Your task to perform on an android device: open app "Google Pay: Save, Pay, Manage" (install if not already installed) Image 0: 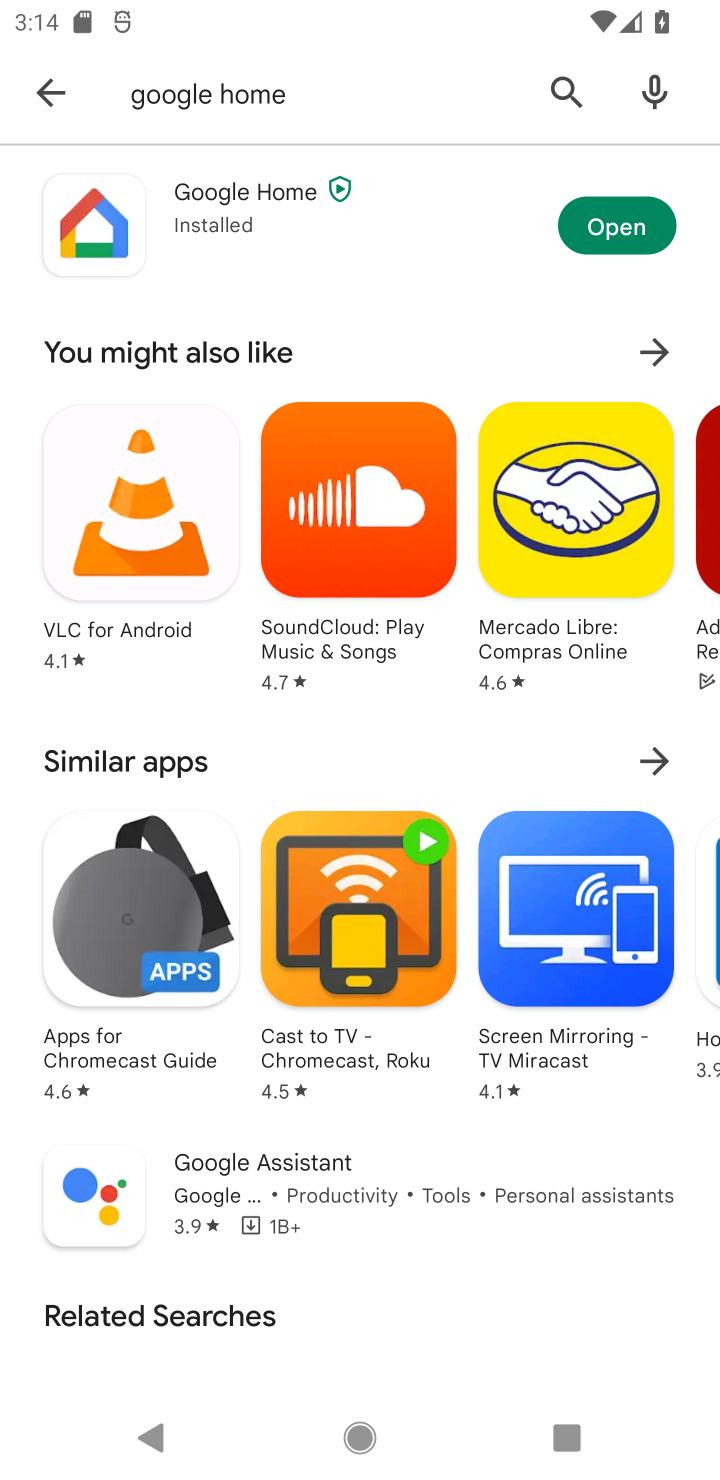
Step 0: click (573, 116)
Your task to perform on an android device: open app "Google Pay: Save, Pay, Manage" (install if not already installed) Image 1: 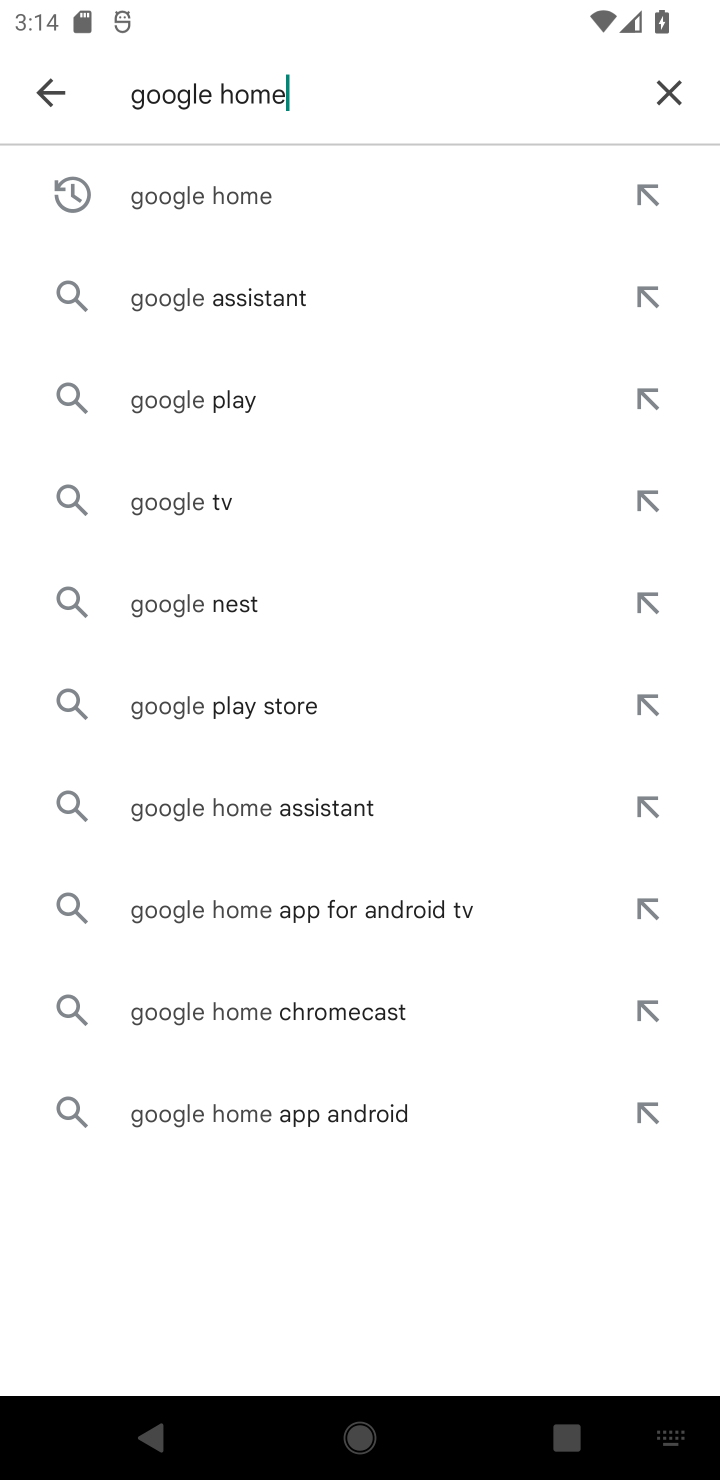
Step 1: click (674, 104)
Your task to perform on an android device: open app "Google Pay: Save, Pay, Manage" (install if not already installed) Image 2: 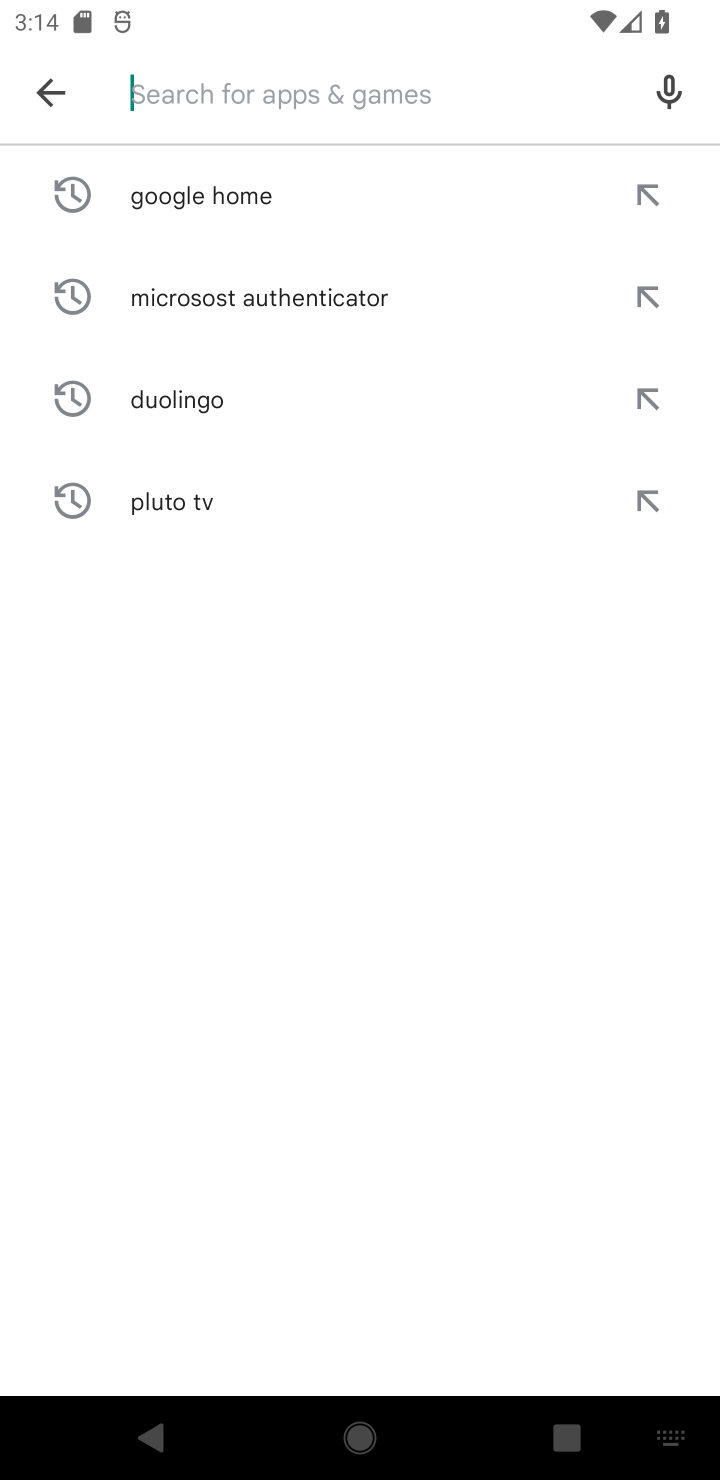
Step 2: type "google pay"
Your task to perform on an android device: open app "Google Pay: Save, Pay, Manage" (install if not already installed) Image 3: 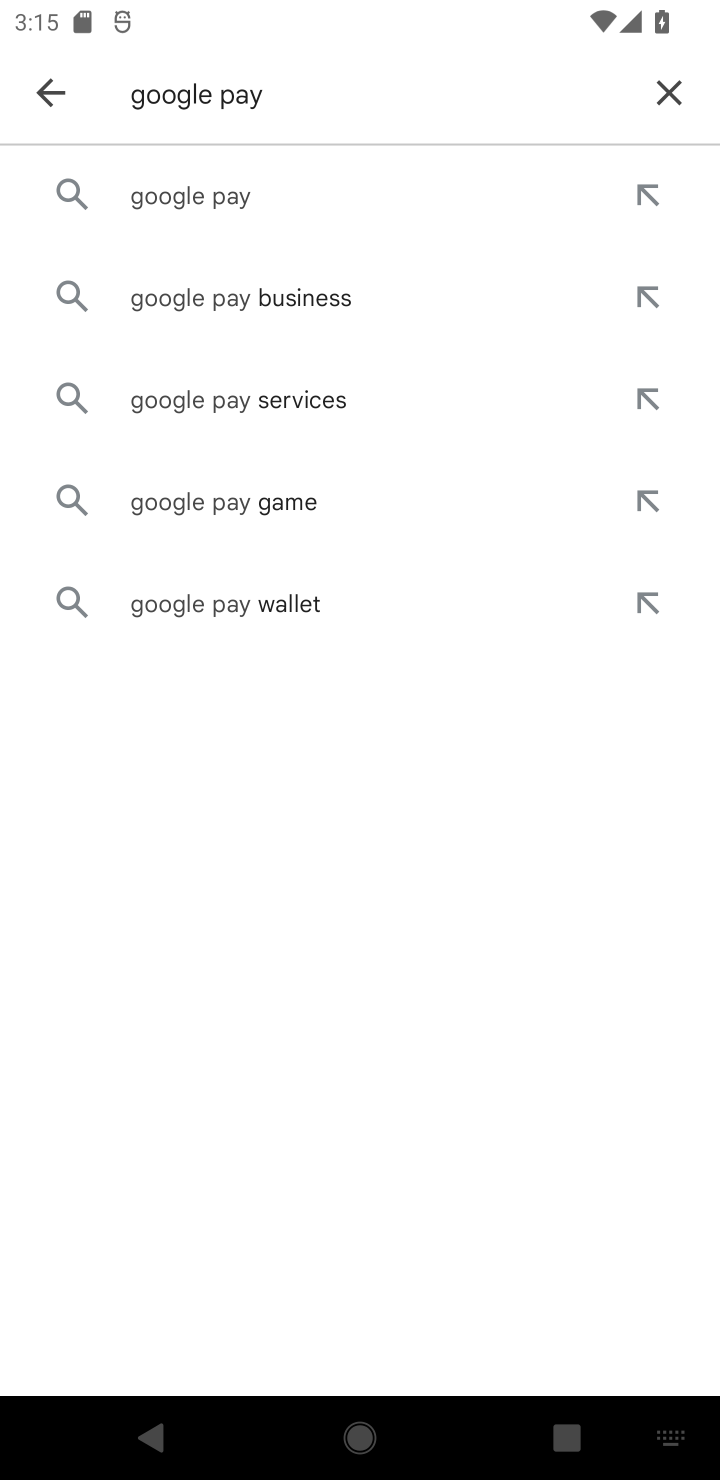
Step 3: click (262, 217)
Your task to perform on an android device: open app "Google Pay: Save, Pay, Manage" (install if not already installed) Image 4: 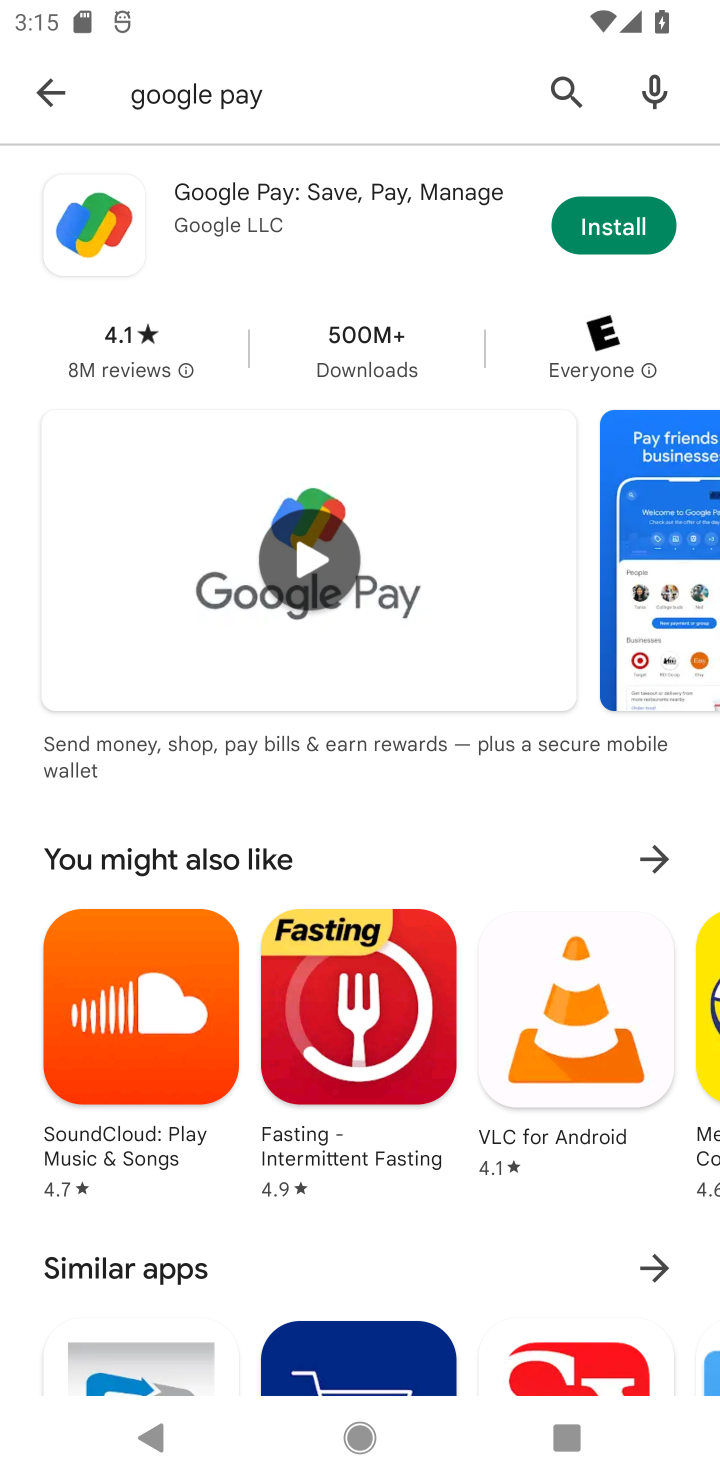
Step 4: click (653, 215)
Your task to perform on an android device: open app "Google Pay: Save, Pay, Manage" (install if not already installed) Image 5: 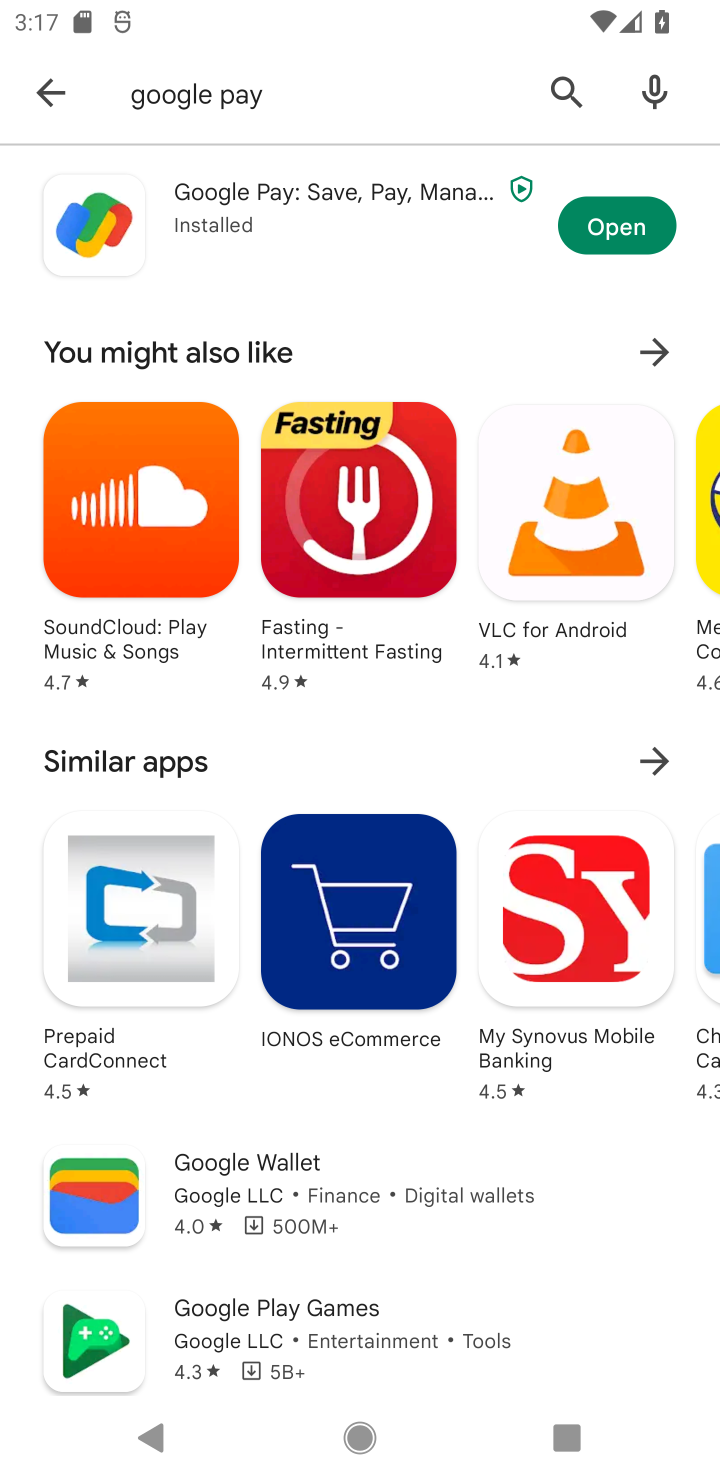
Step 5: click (574, 239)
Your task to perform on an android device: open app "Google Pay: Save, Pay, Manage" (install if not already installed) Image 6: 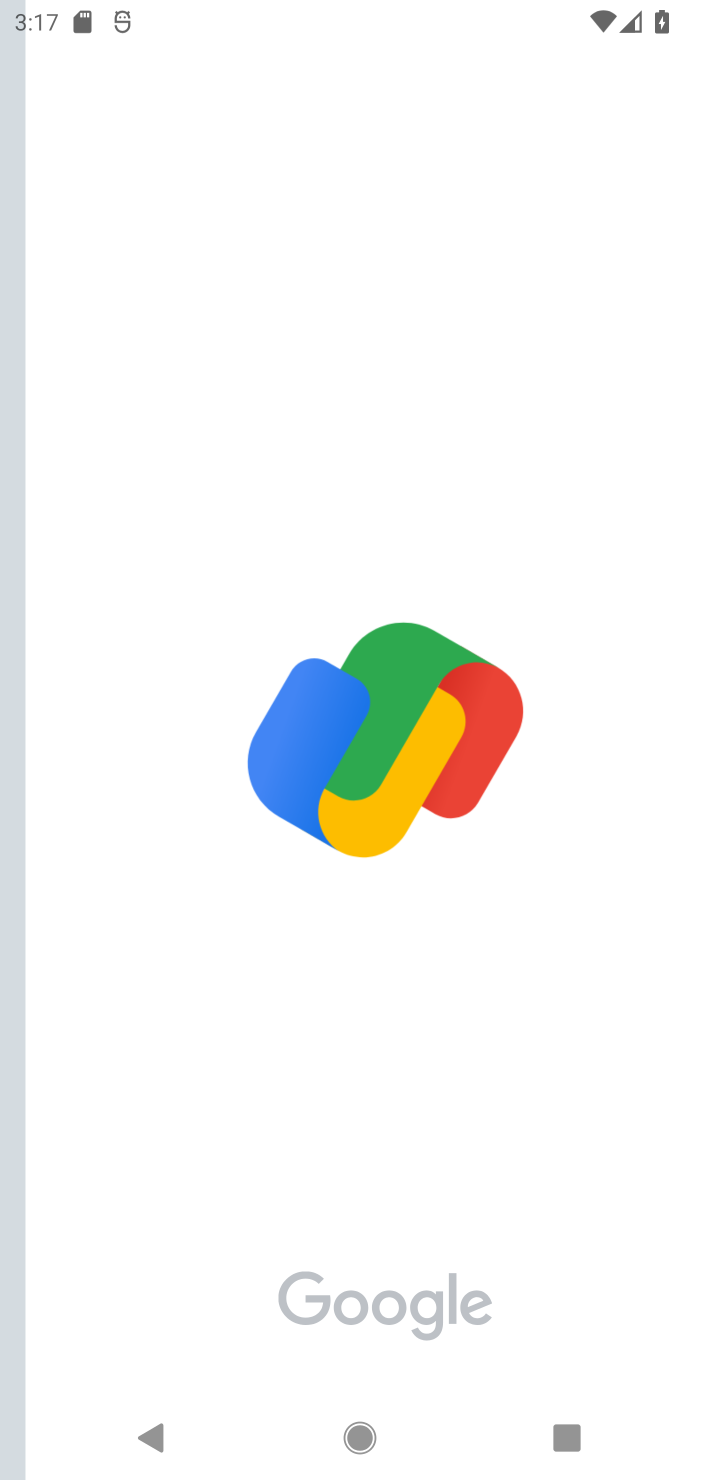
Step 6: task complete